Your task to perform on an android device: turn on wifi Image 0: 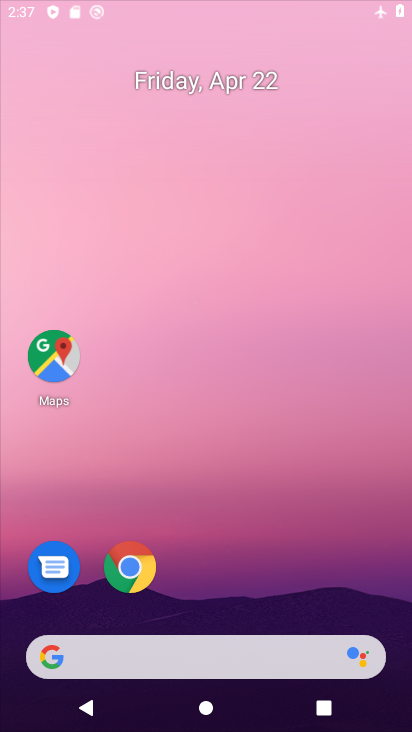
Step 0: click (196, 223)
Your task to perform on an android device: turn on wifi Image 1: 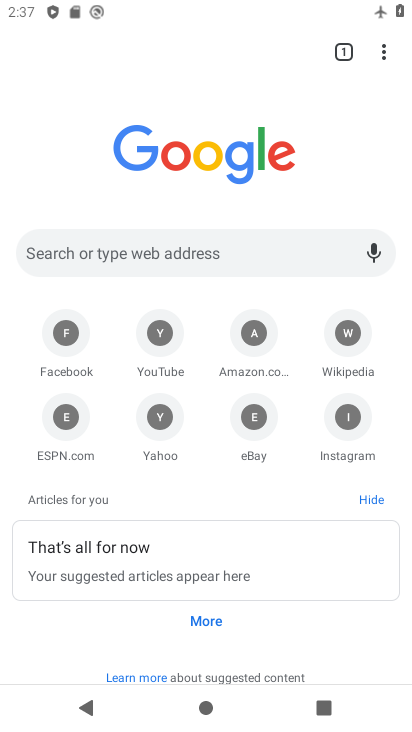
Step 1: press home button
Your task to perform on an android device: turn on wifi Image 2: 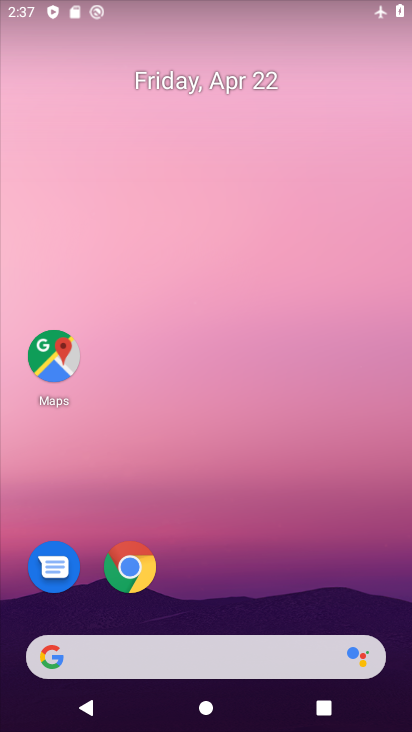
Step 2: drag from (293, 680) to (281, 111)
Your task to perform on an android device: turn on wifi Image 3: 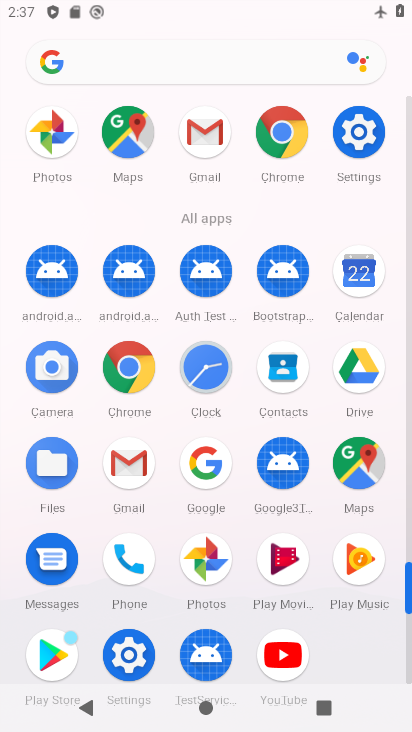
Step 3: drag from (273, 601) to (180, 96)
Your task to perform on an android device: turn on wifi Image 4: 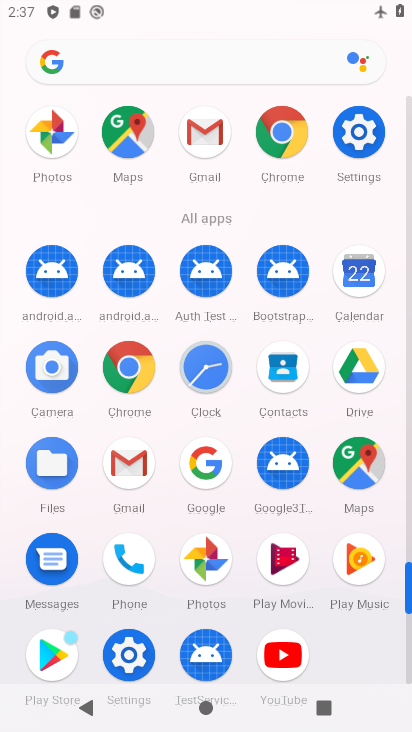
Step 4: click (365, 131)
Your task to perform on an android device: turn on wifi Image 5: 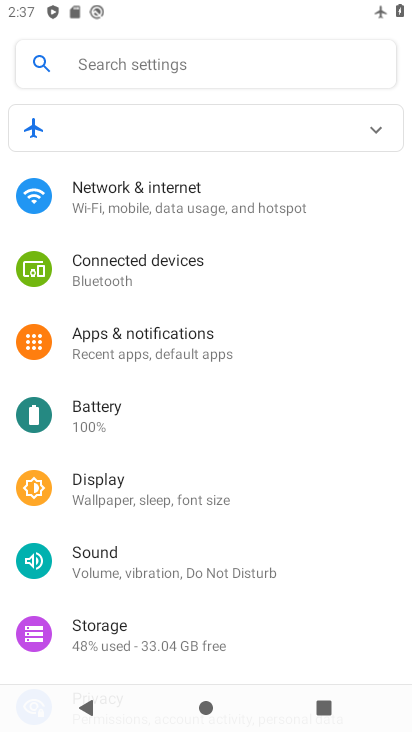
Step 5: click (112, 190)
Your task to perform on an android device: turn on wifi Image 6: 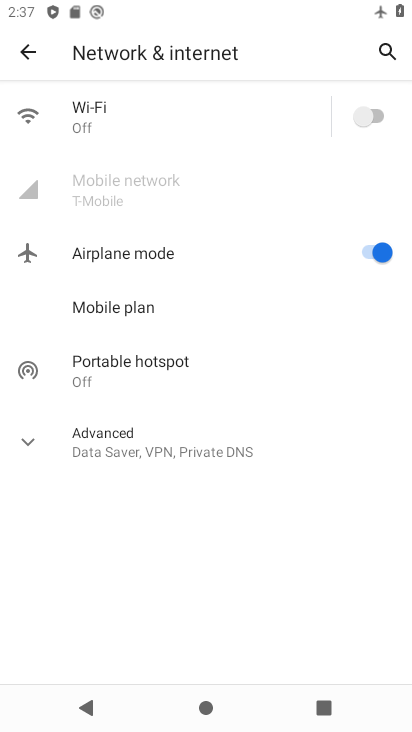
Step 6: click (364, 113)
Your task to perform on an android device: turn on wifi Image 7: 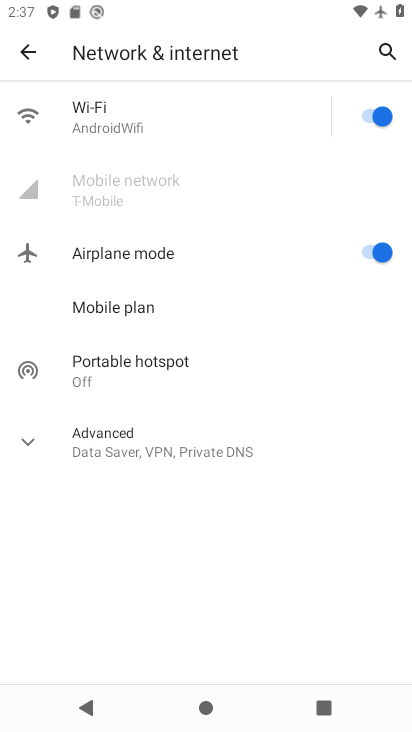
Step 7: task complete